Your task to perform on an android device: Search for the best running shoes on Nike. Image 0: 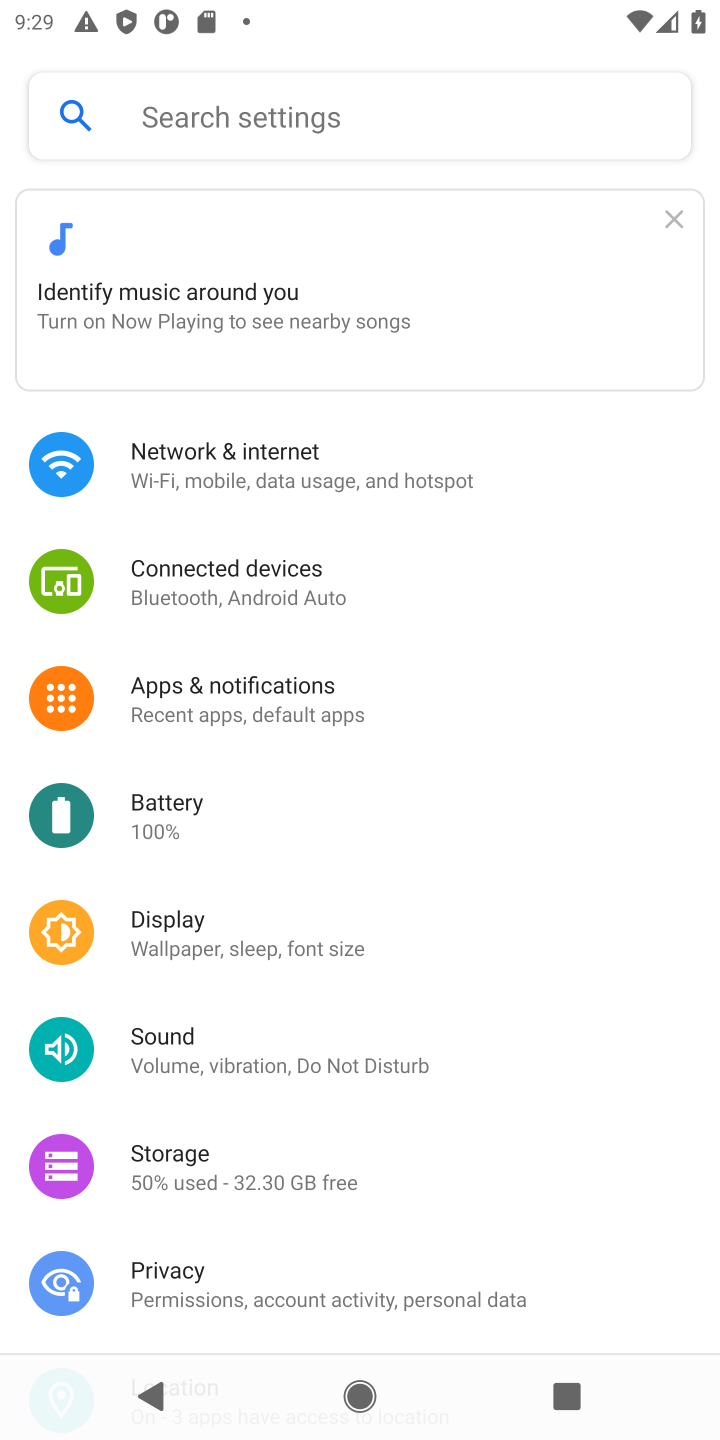
Step 0: press home button
Your task to perform on an android device: Search for the best running shoes on Nike. Image 1: 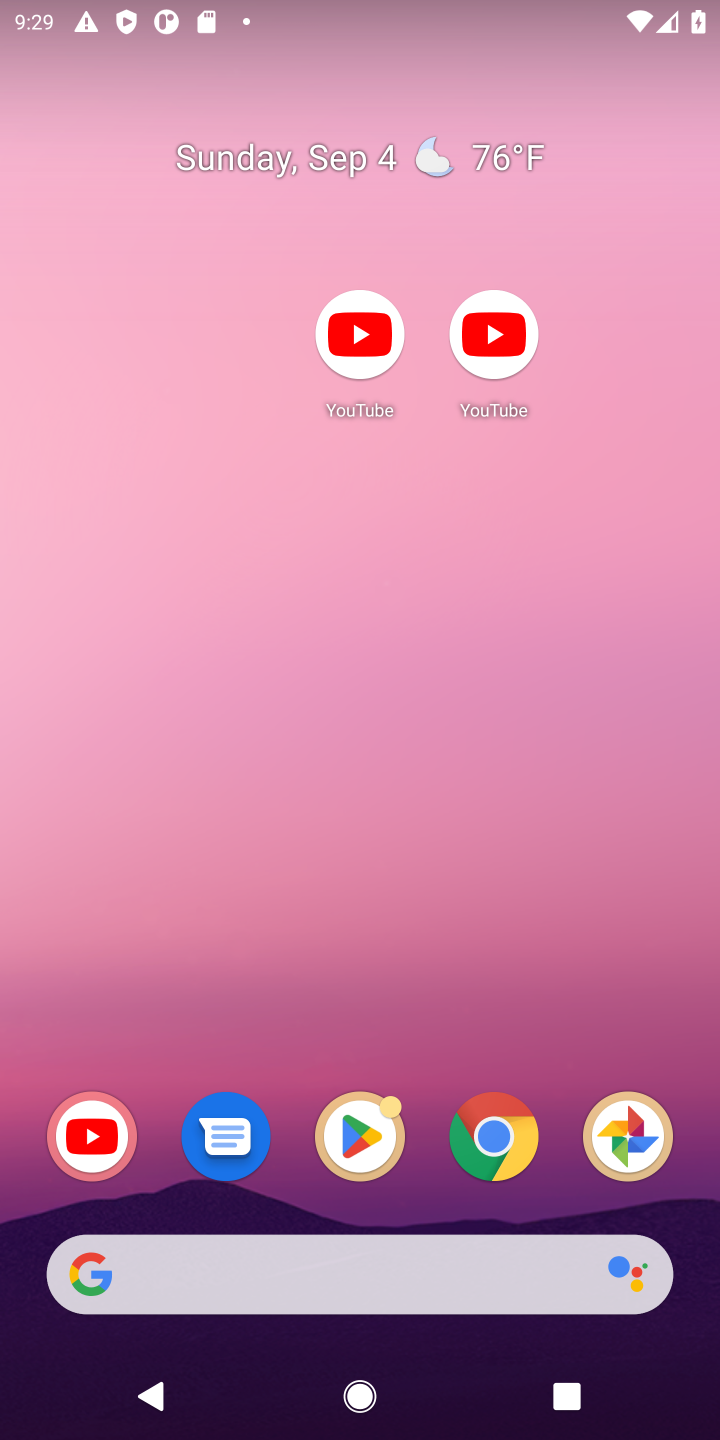
Step 1: drag from (313, 1180) to (304, 298)
Your task to perform on an android device: Search for the best running shoes on Nike. Image 2: 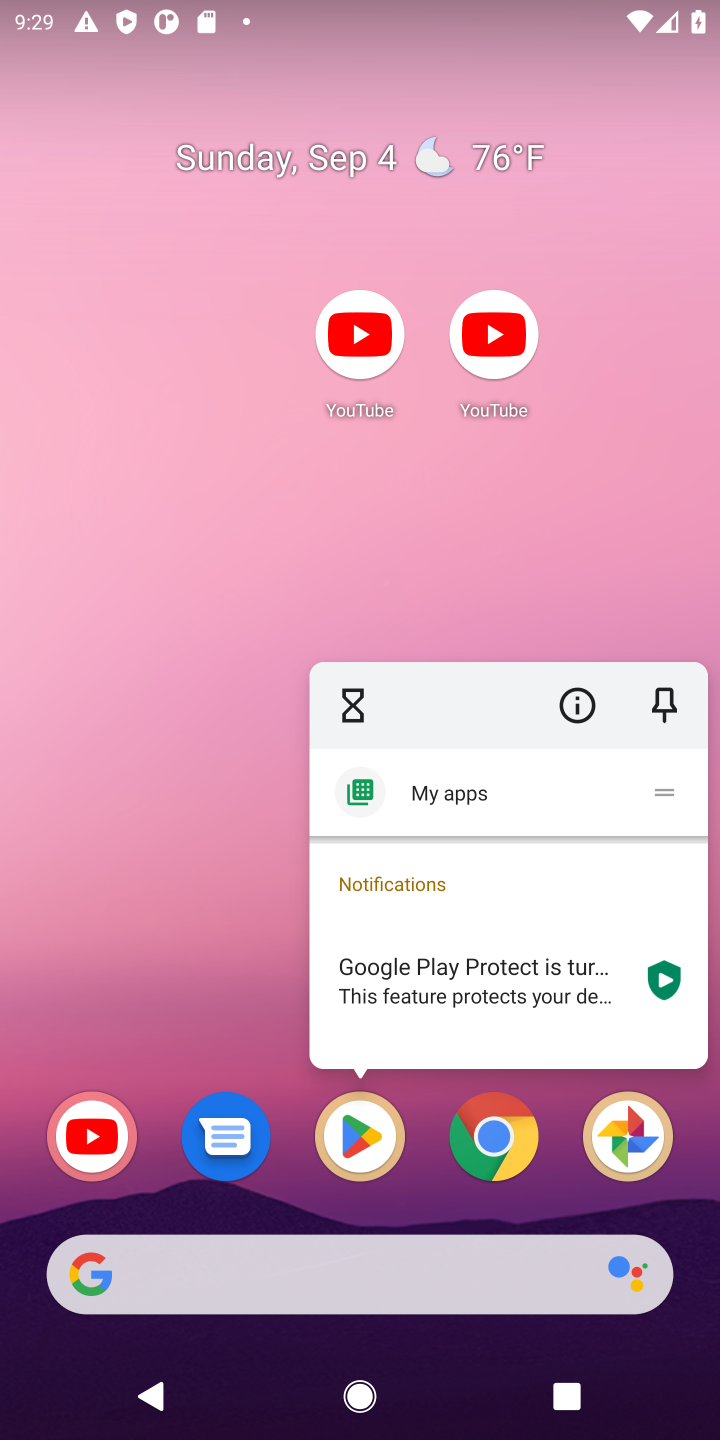
Step 2: click (304, 1173)
Your task to perform on an android device: Search for the best running shoes on Nike. Image 3: 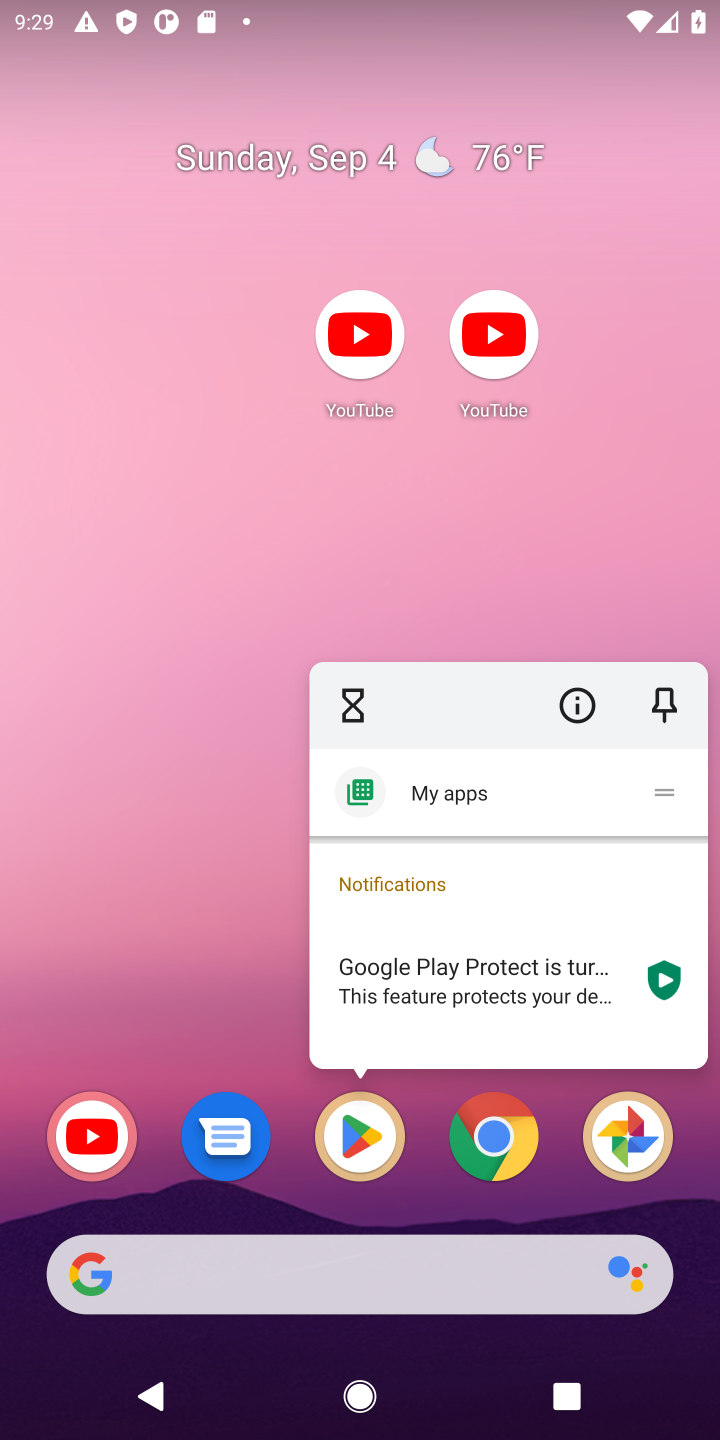
Step 3: drag from (301, 1168) to (298, 131)
Your task to perform on an android device: Search for the best running shoes on Nike. Image 4: 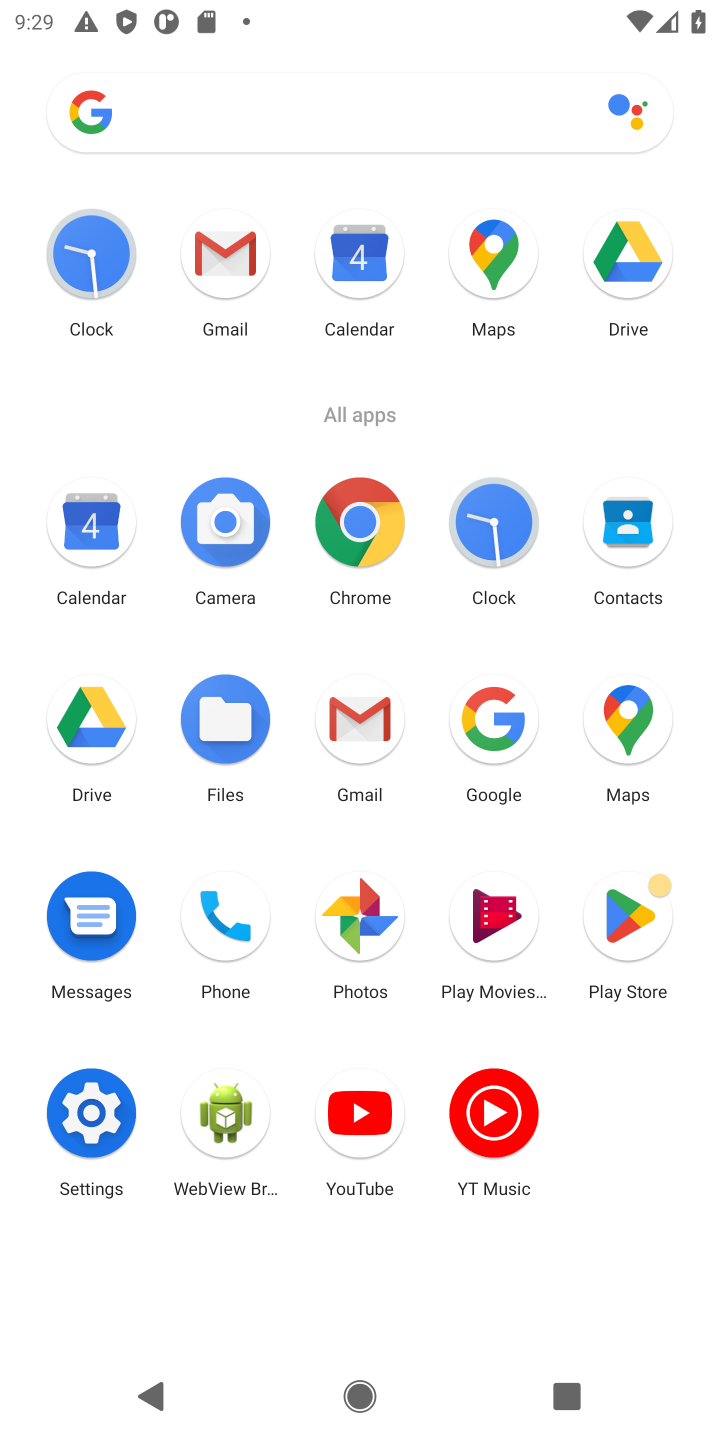
Step 4: click (492, 748)
Your task to perform on an android device: Search for the best running shoes on Nike. Image 5: 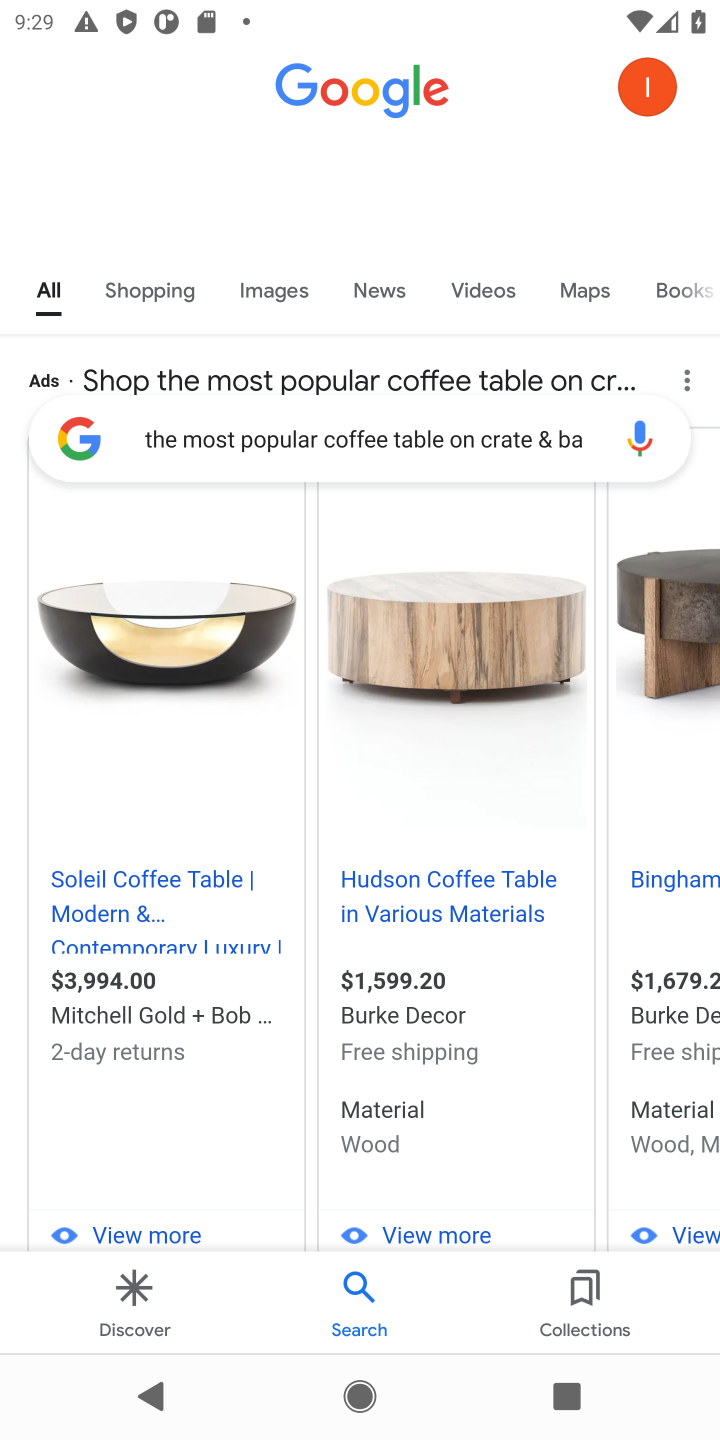
Step 5: click (637, 388)
Your task to perform on an android device: Search for the best running shoes on Nike. Image 6: 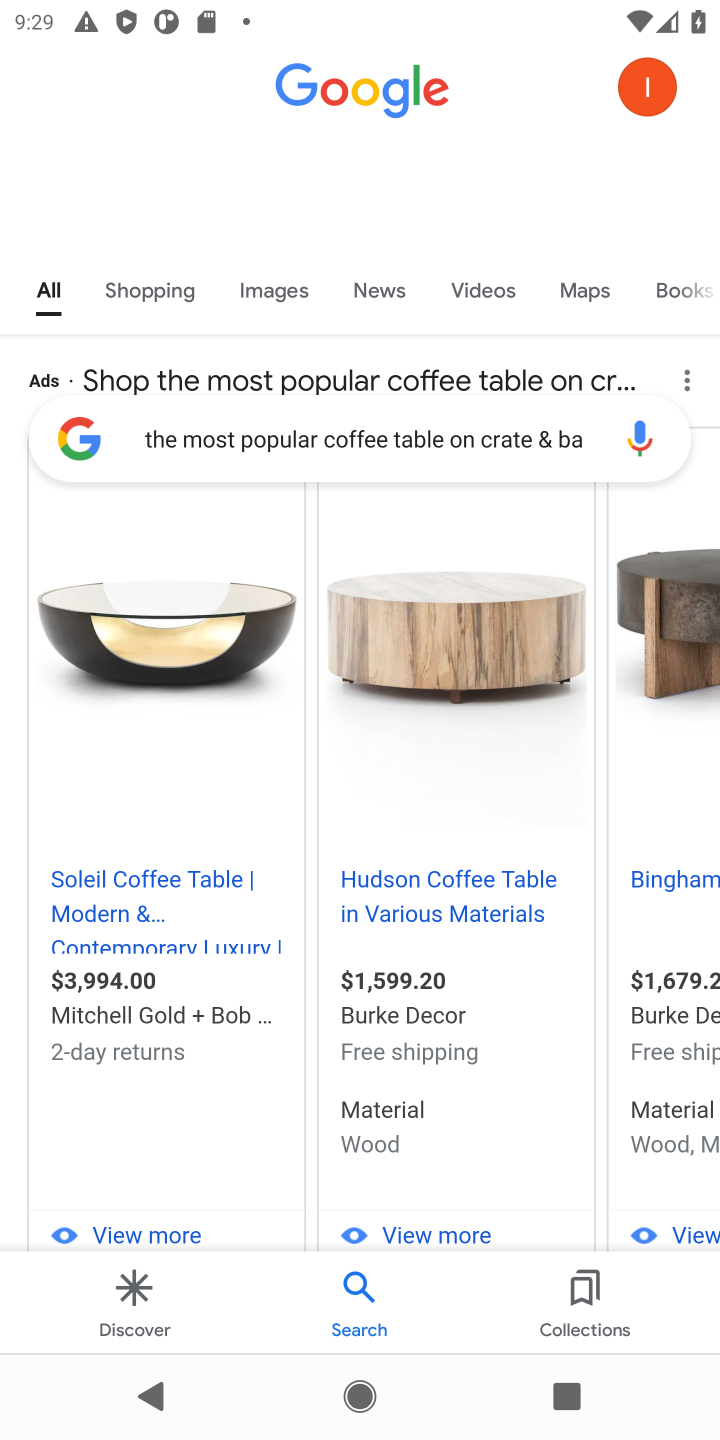
Step 6: click (666, 364)
Your task to perform on an android device: Search for the best running shoes on Nike. Image 7: 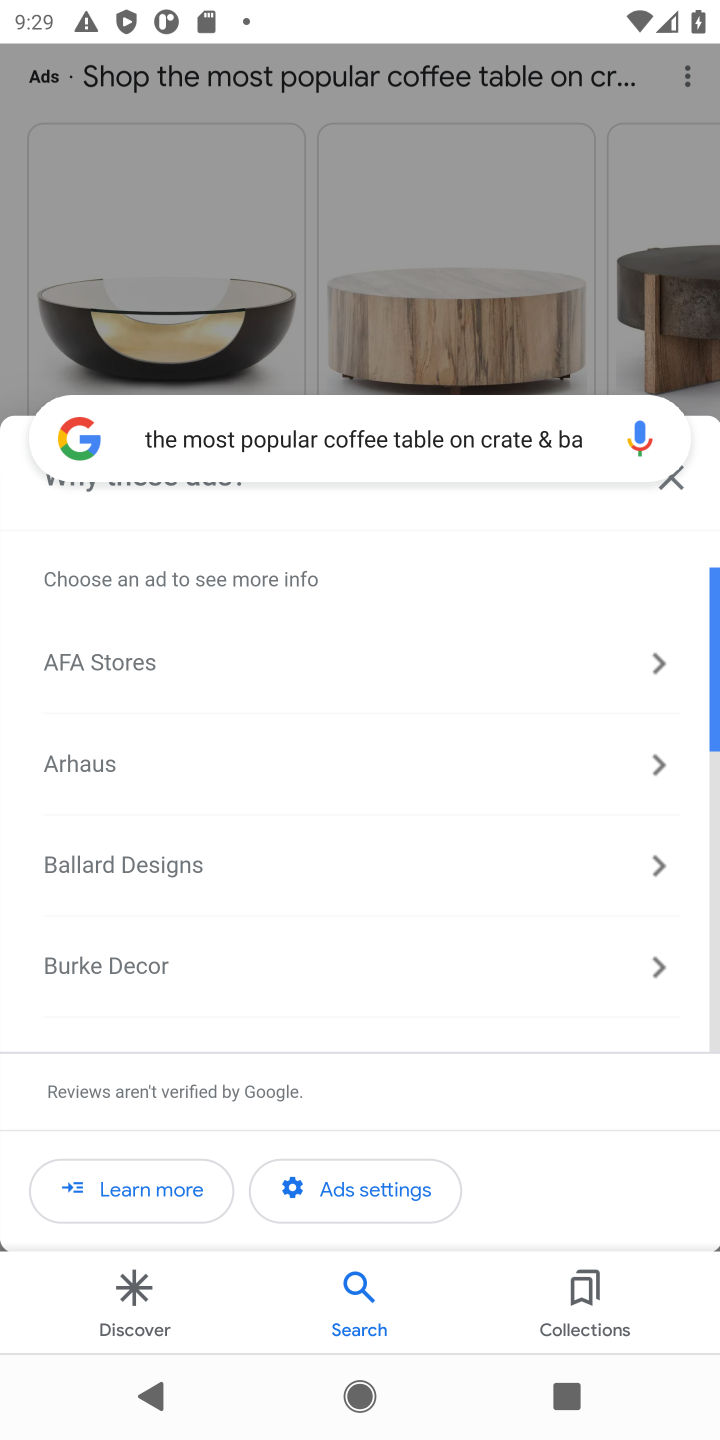
Step 7: click (675, 472)
Your task to perform on an android device: Search for the best running shoes on Nike. Image 8: 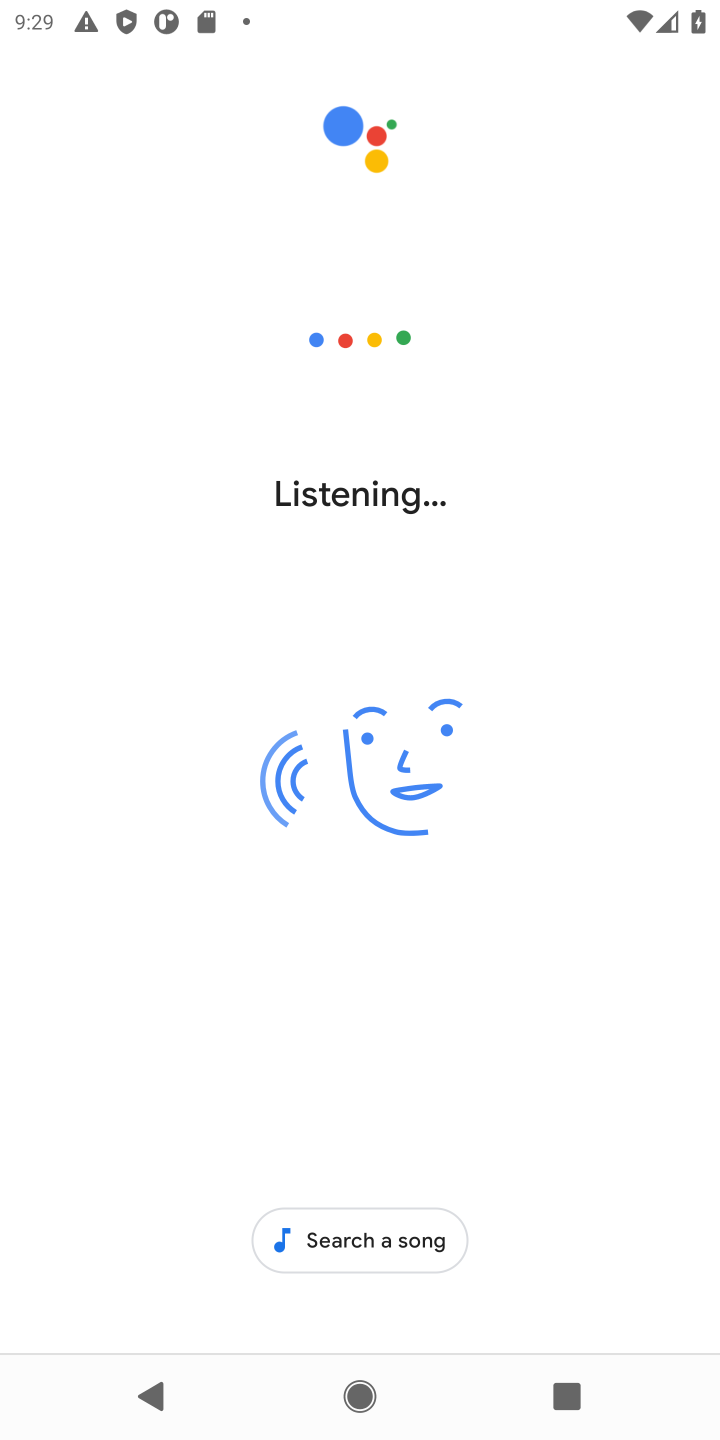
Step 8: press home button
Your task to perform on an android device: Search for the best running shoes on Nike. Image 9: 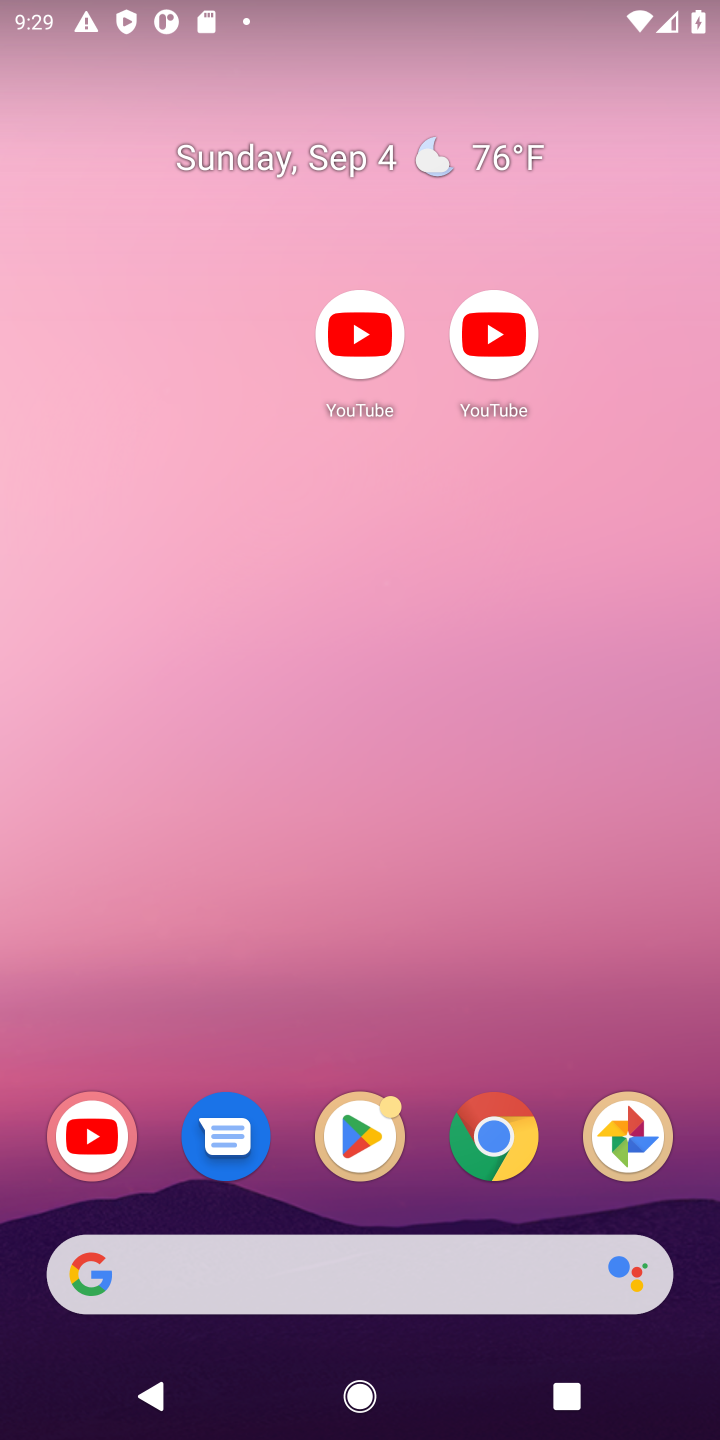
Step 9: drag from (364, 1038) to (329, 43)
Your task to perform on an android device: Search for the best running shoes on Nike. Image 10: 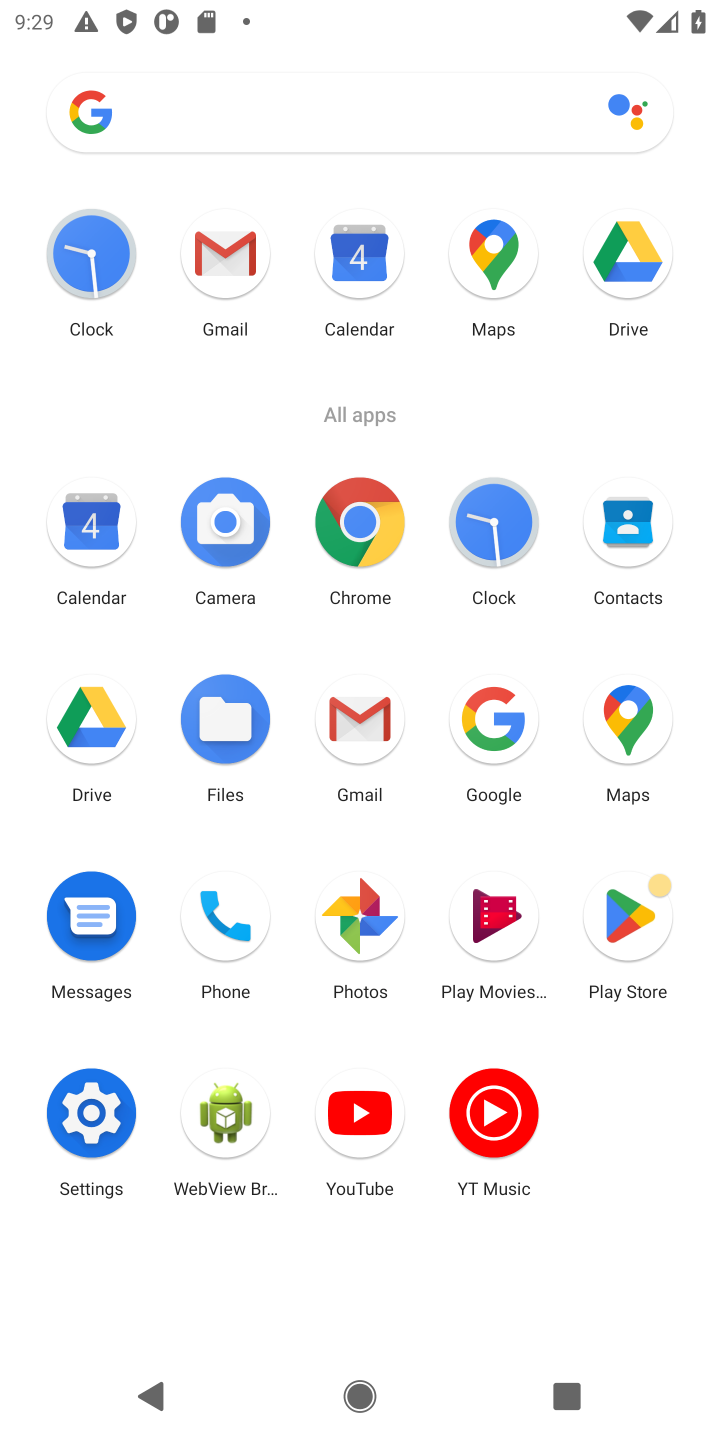
Step 10: click (485, 724)
Your task to perform on an android device: Search for the best running shoes on Nike. Image 11: 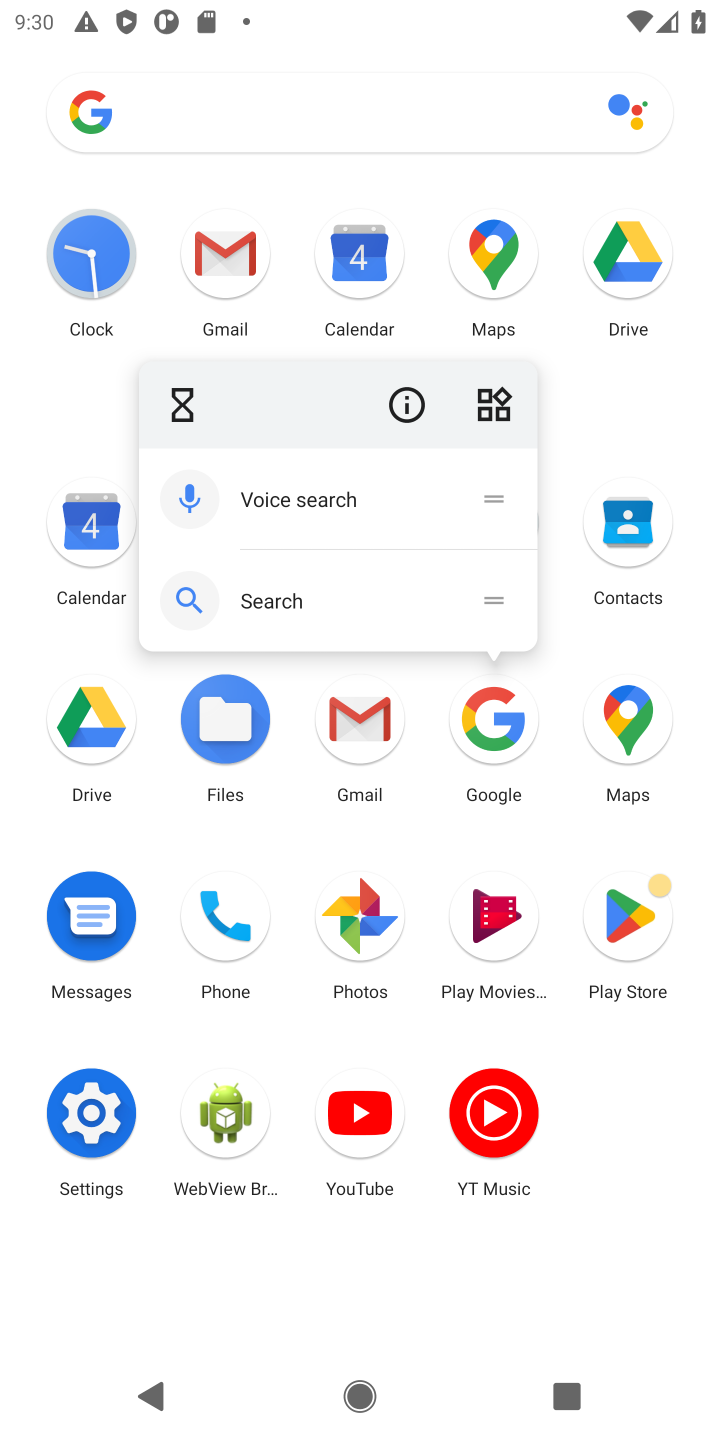
Step 11: click (485, 724)
Your task to perform on an android device: Search for the best running shoes on Nike. Image 12: 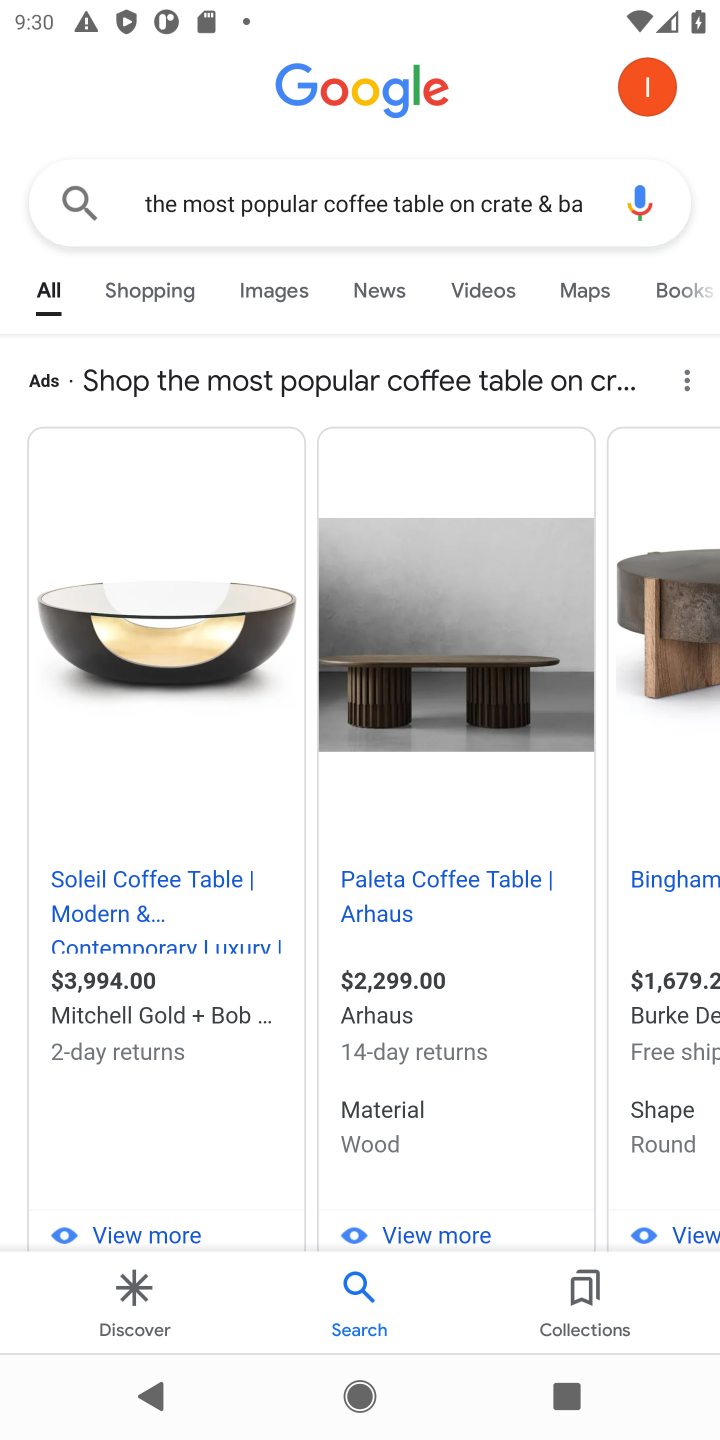
Step 12: click (535, 214)
Your task to perform on an android device: Search for the best running shoes on Nike. Image 13: 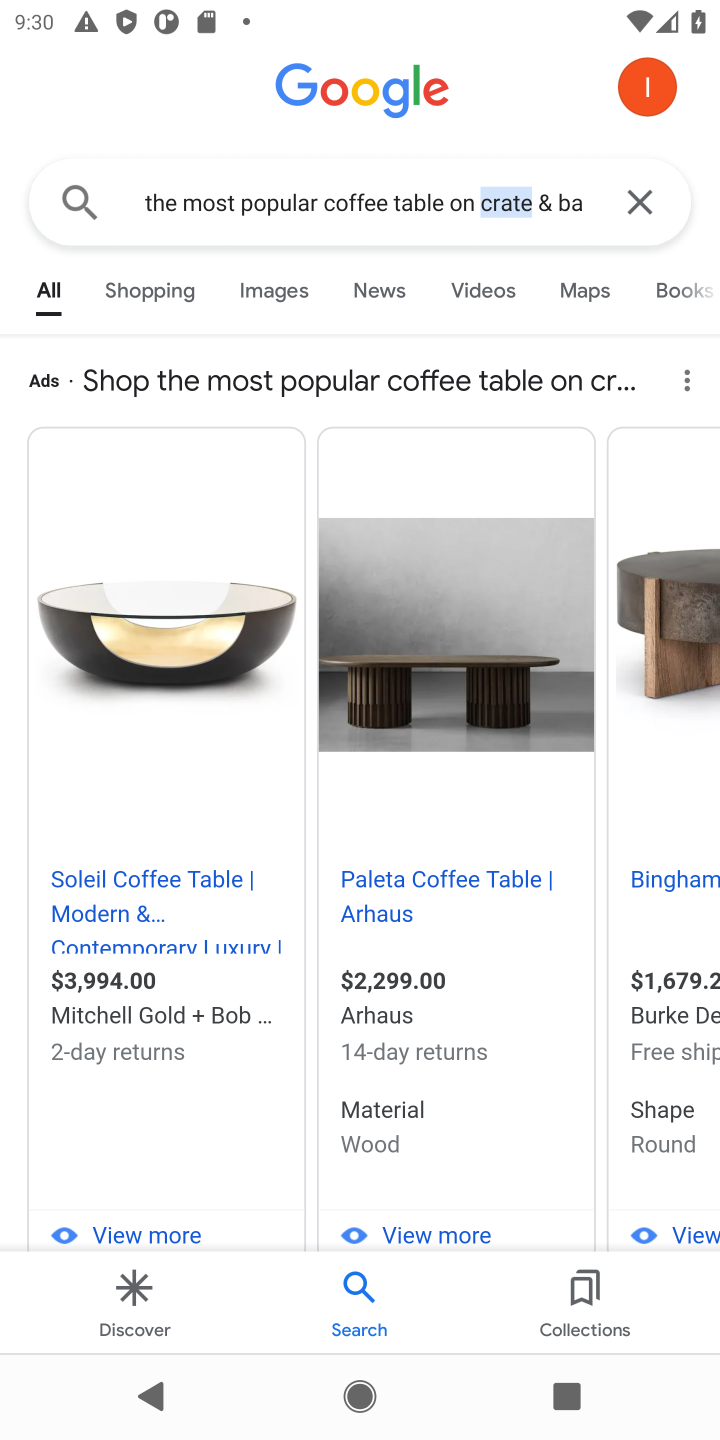
Step 13: click (571, 214)
Your task to perform on an android device: Search for the best running shoes on Nike. Image 14: 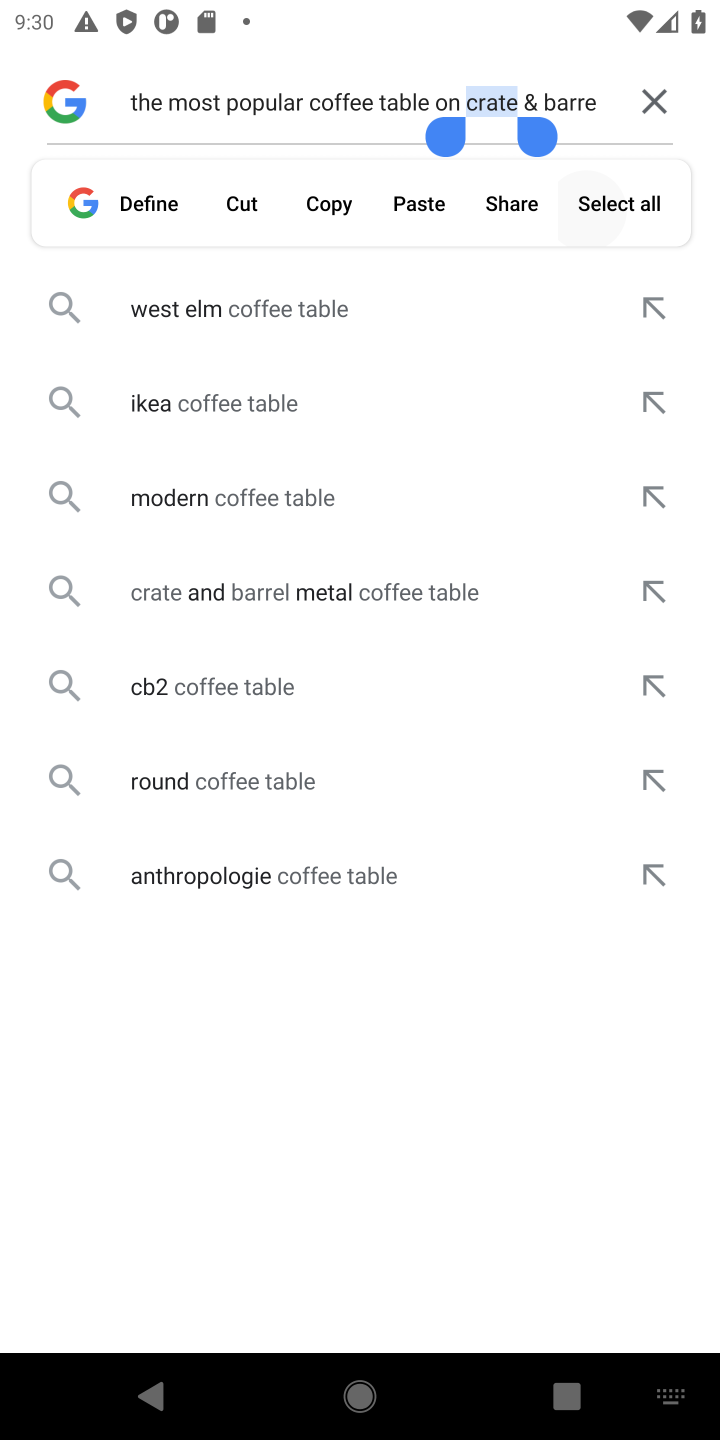
Step 14: click (664, 101)
Your task to perform on an android device: Search for the best running shoes on Nike. Image 15: 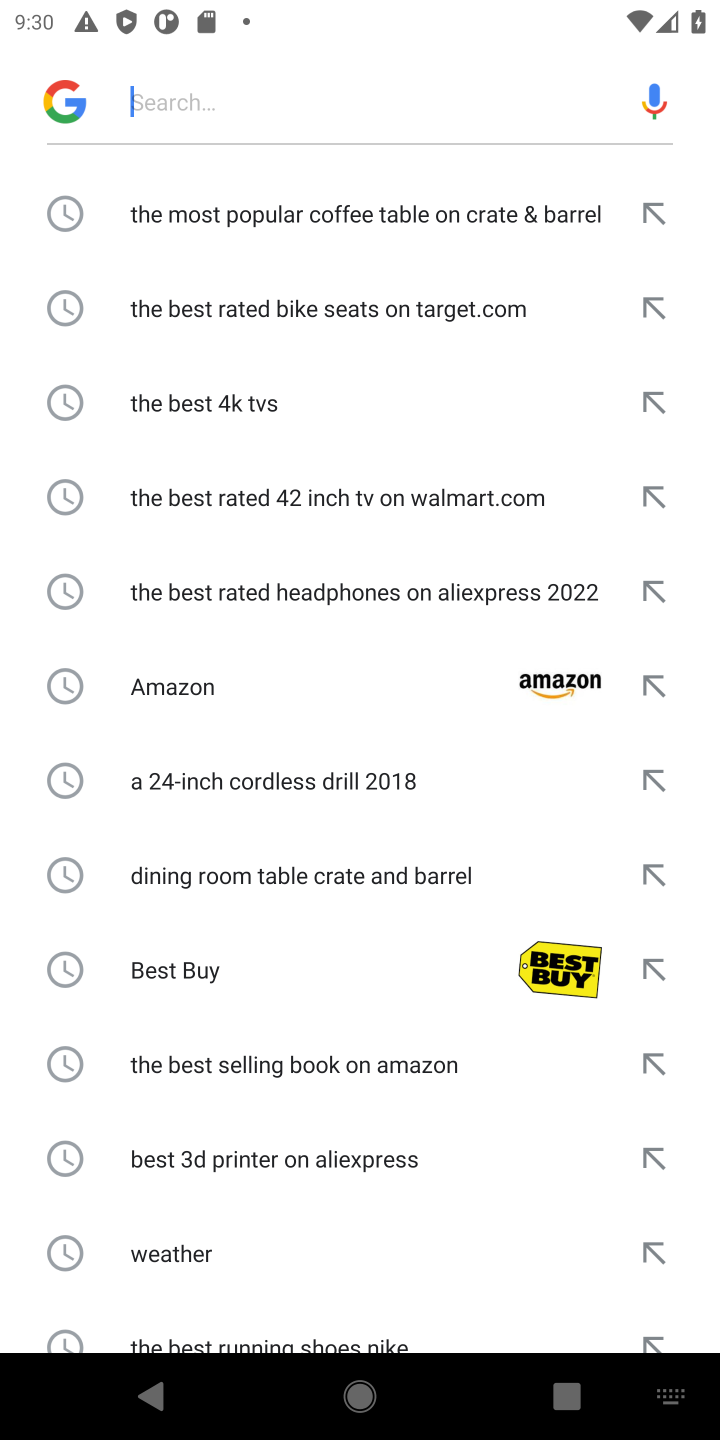
Step 15: click (483, 101)
Your task to perform on an android device: Search for the best running shoes on Nike. Image 16: 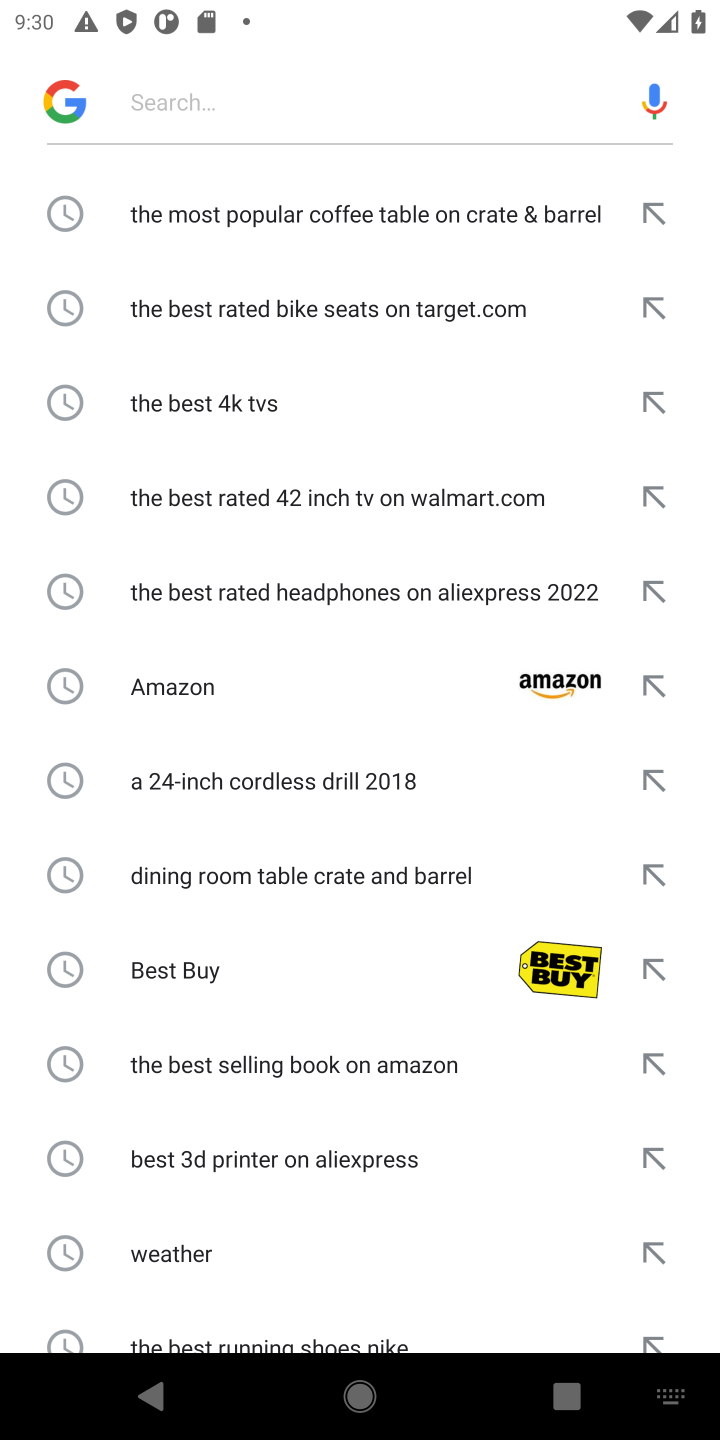
Step 16: type " the best running shoes on Nike"
Your task to perform on an android device: Search for the best running shoes on Nike. Image 17: 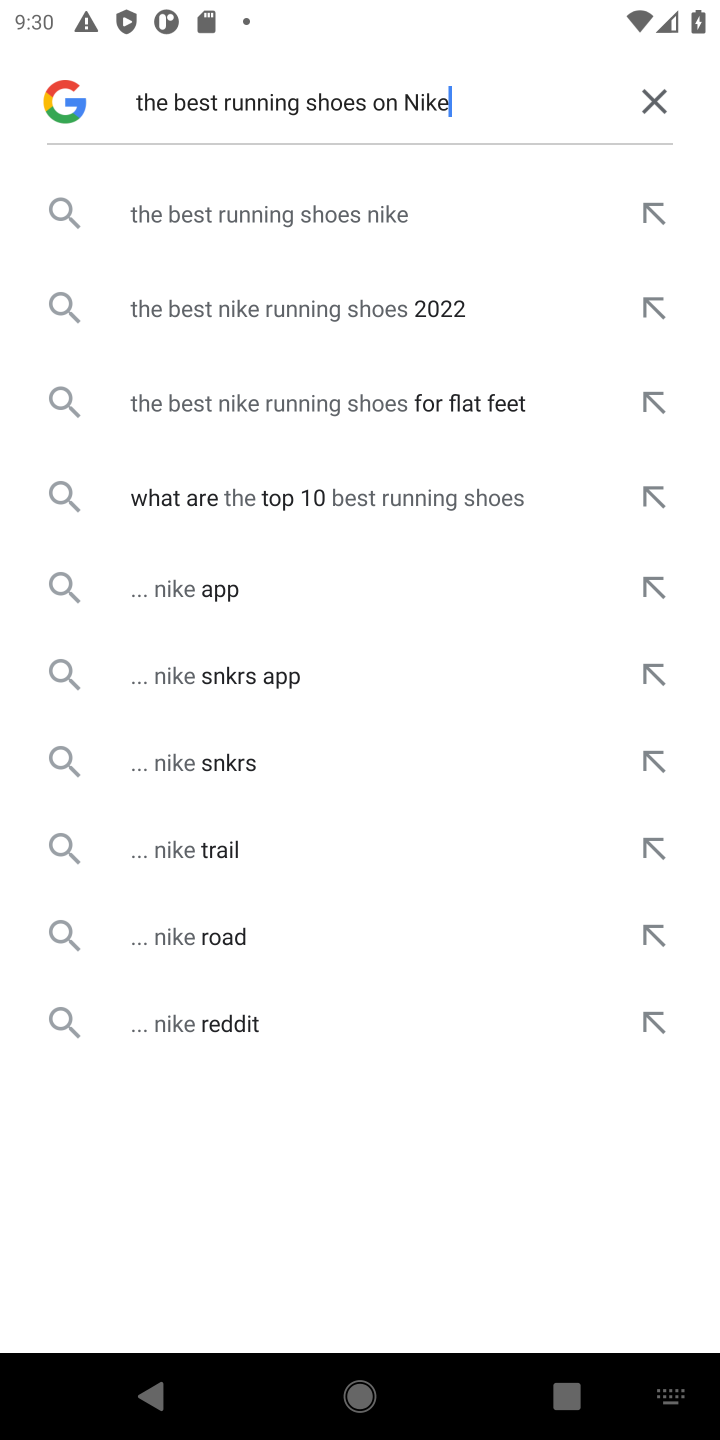
Step 17: click (322, 211)
Your task to perform on an android device: Search for the best running shoes on Nike. Image 18: 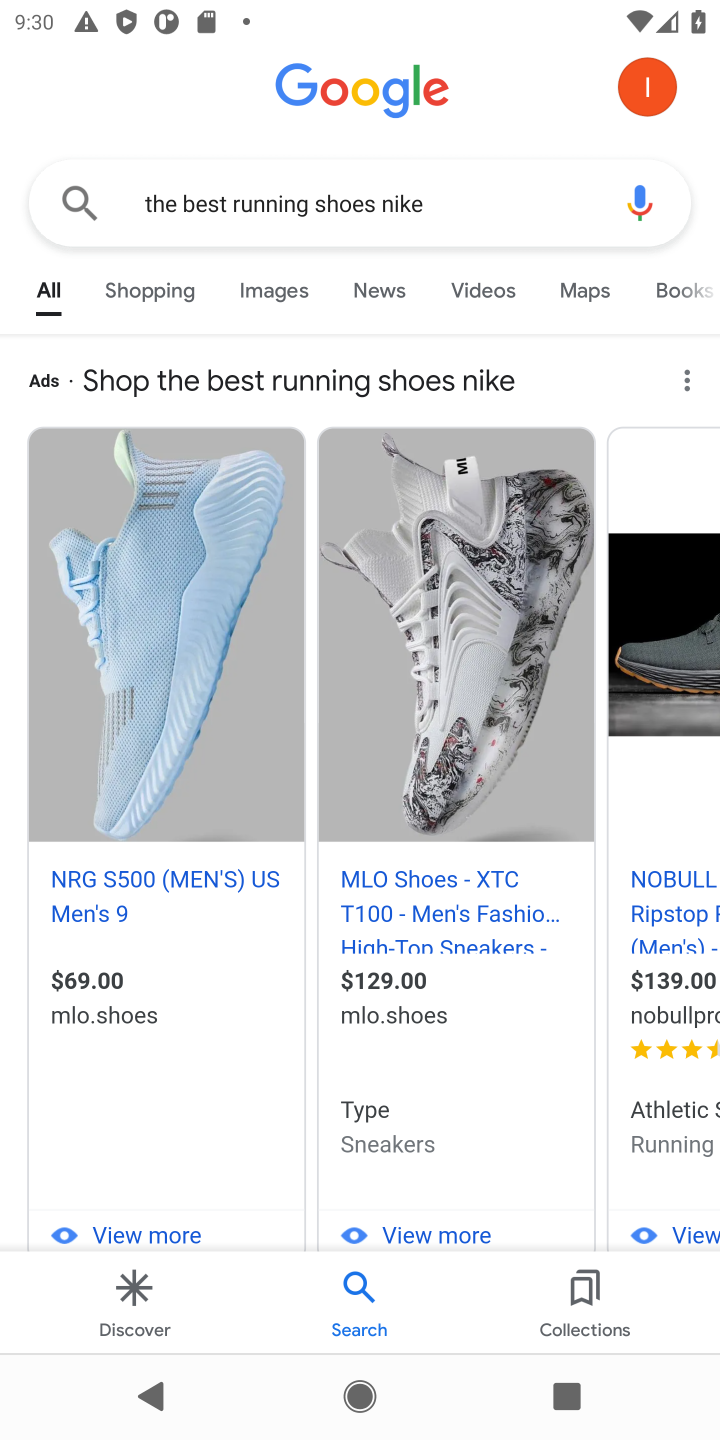
Step 18: task complete